Your task to perform on an android device: Open Google Chrome and open the bookmarks view Image 0: 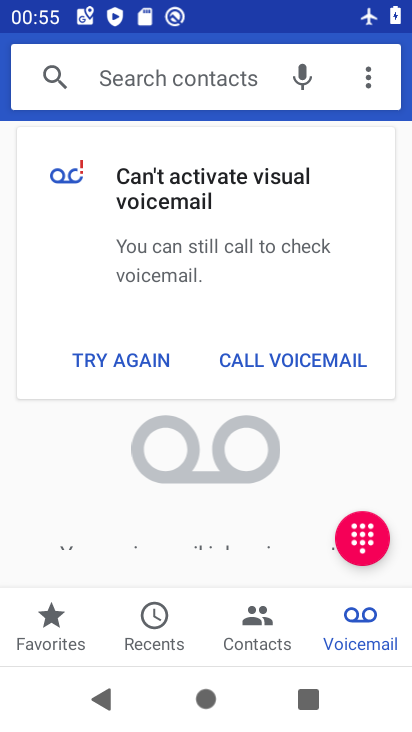
Step 0: press home button
Your task to perform on an android device: Open Google Chrome and open the bookmarks view Image 1: 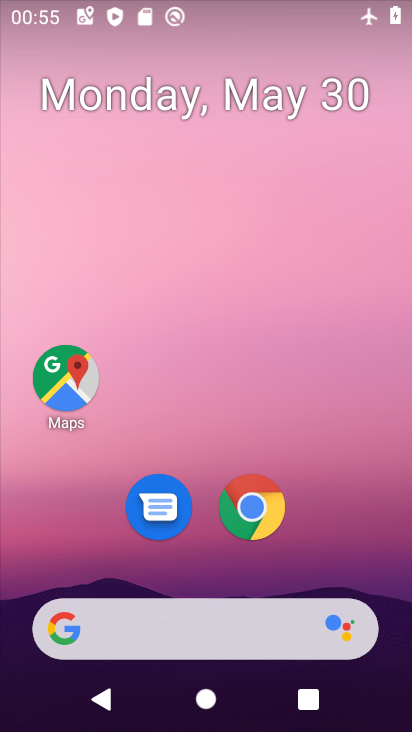
Step 1: click (262, 490)
Your task to perform on an android device: Open Google Chrome and open the bookmarks view Image 2: 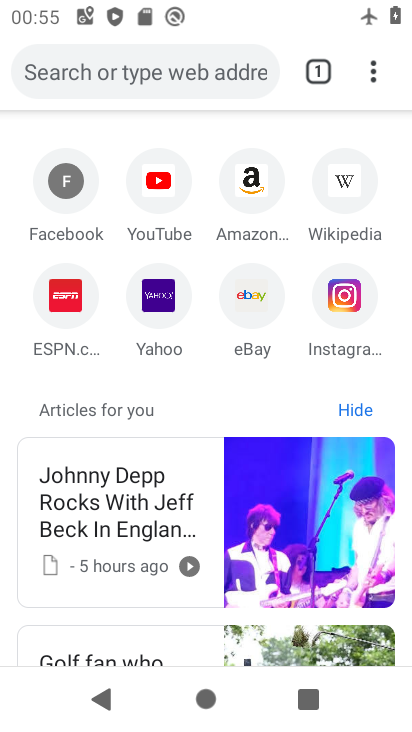
Step 2: click (371, 57)
Your task to perform on an android device: Open Google Chrome and open the bookmarks view Image 3: 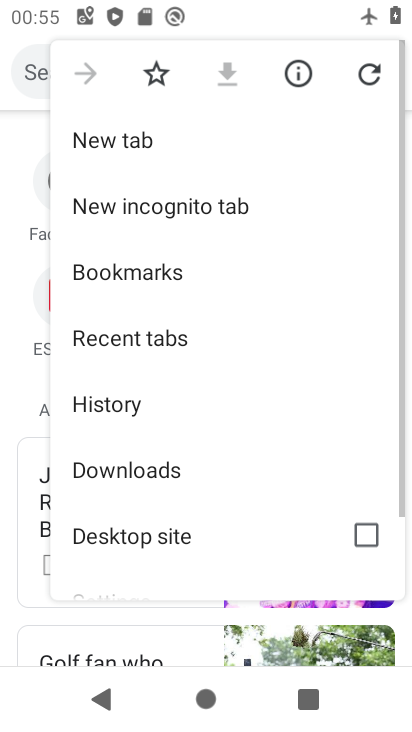
Step 3: drag from (211, 457) to (214, 183)
Your task to perform on an android device: Open Google Chrome and open the bookmarks view Image 4: 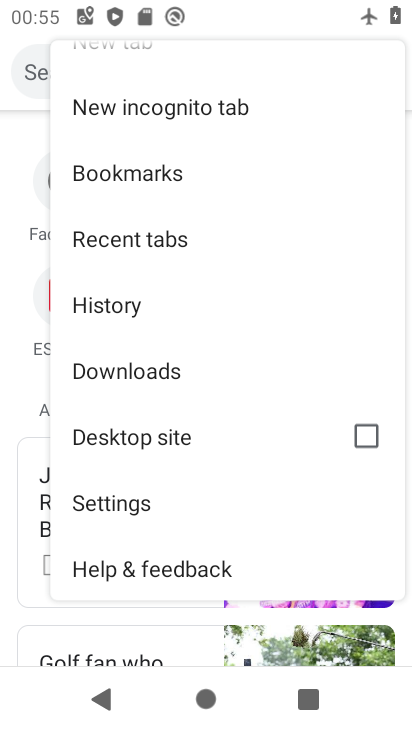
Step 4: click (189, 167)
Your task to perform on an android device: Open Google Chrome and open the bookmarks view Image 5: 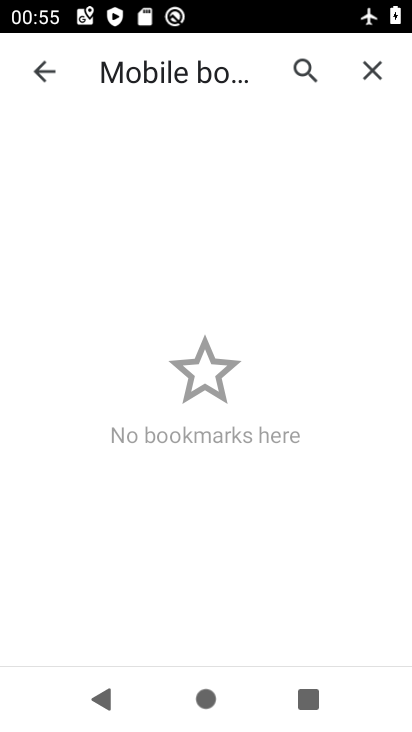
Step 5: task complete